Your task to perform on an android device: Open the map Image 0: 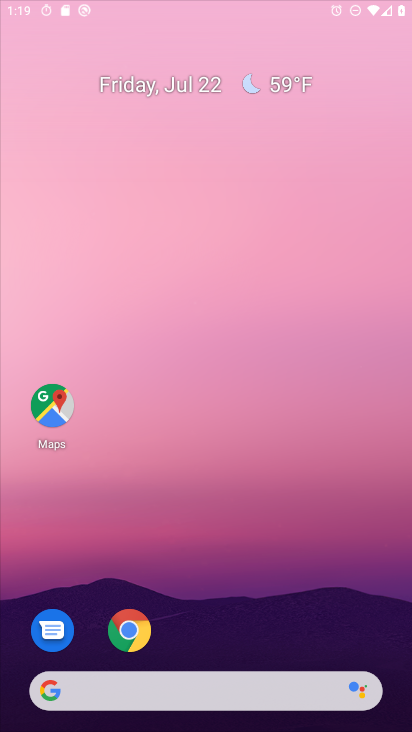
Step 0: press home button
Your task to perform on an android device: Open the map Image 1: 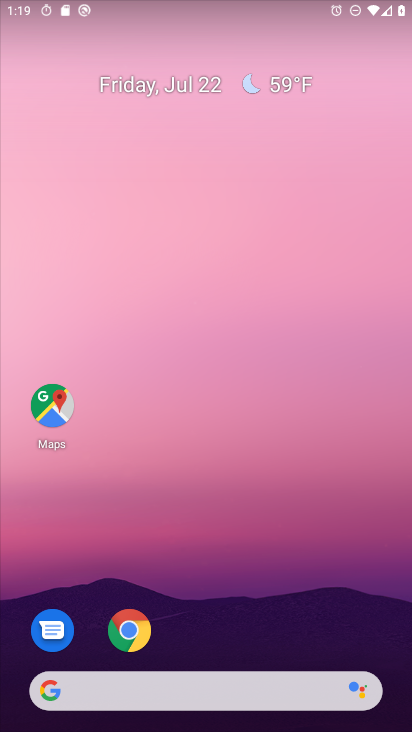
Step 1: drag from (273, 649) to (236, 7)
Your task to perform on an android device: Open the map Image 2: 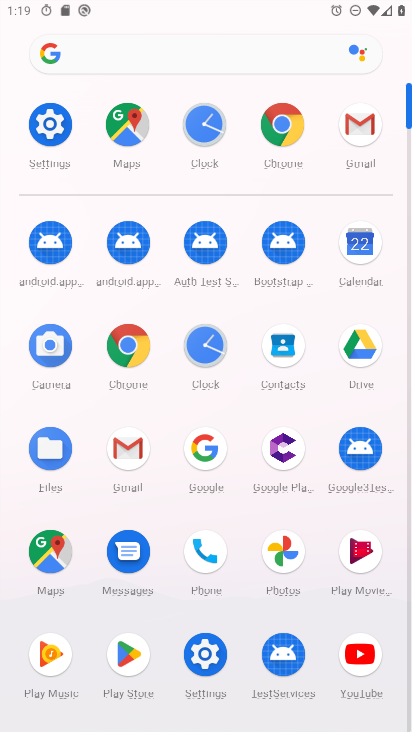
Step 2: click (125, 131)
Your task to perform on an android device: Open the map Image 3: 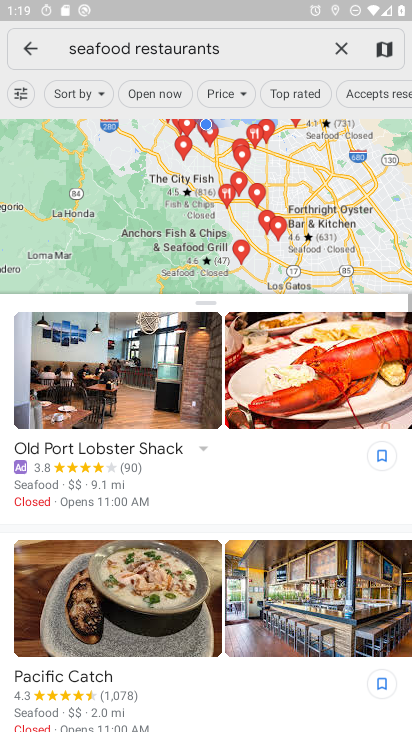
Step 3: click (21, 50)
Your task to perform on an android device: Open the map Image 4: 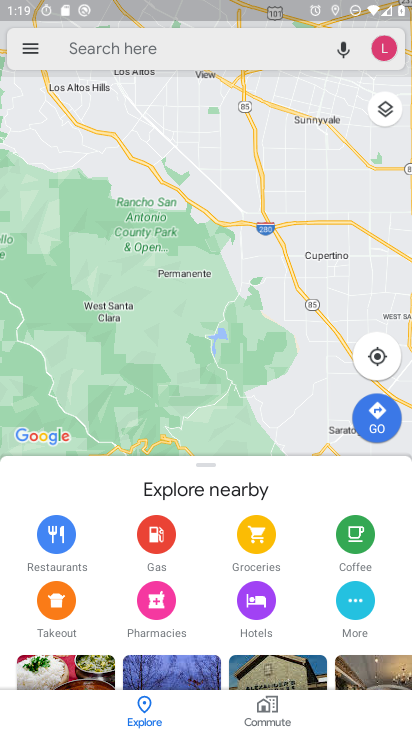
Step 4: task complete